Your task to perform on an android device: Open Chrome and go to settings Image 0: 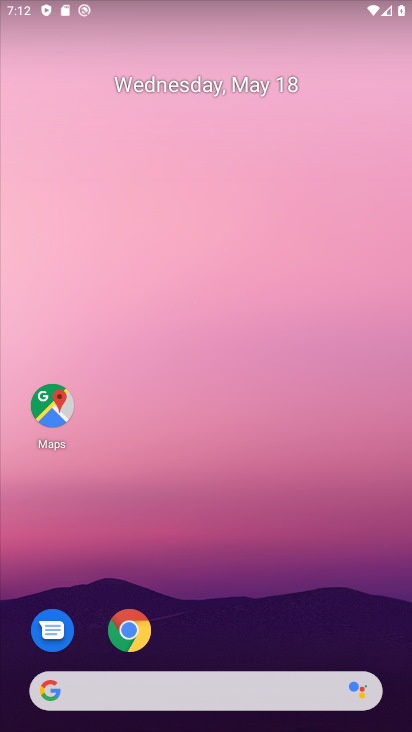
Step 0: click (125, 631)
Your task to perform on an android device: Open Chrome and go to settings Image 1: 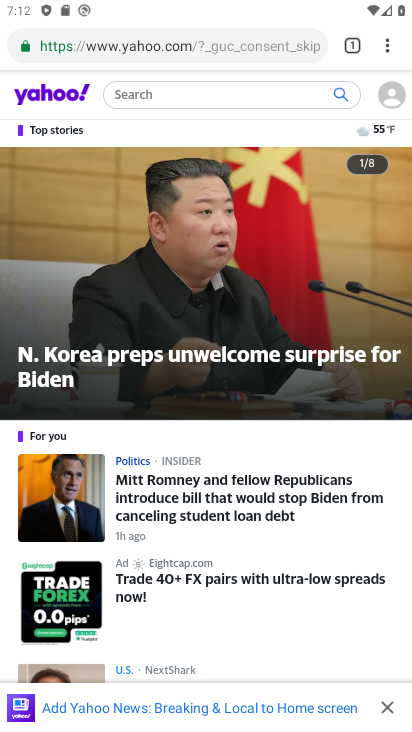
Step 1: click (384, 42)
Your task to perform on an android device: Open Chrome and go to settings Image 2: 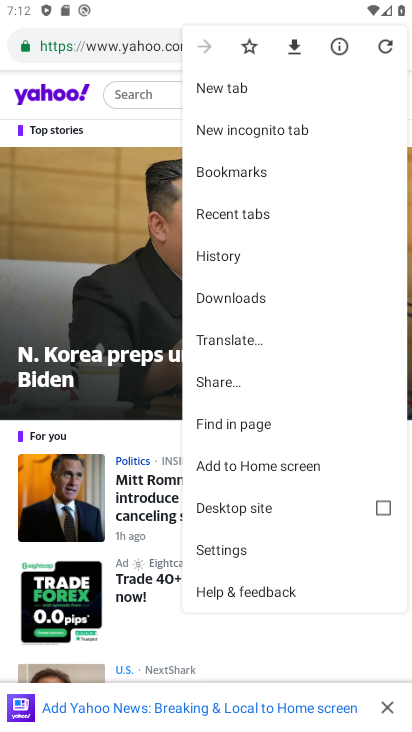
Step 2: click (224, 550)
Your task to perform on an android device: Open Chrome and go to settings Image 3: 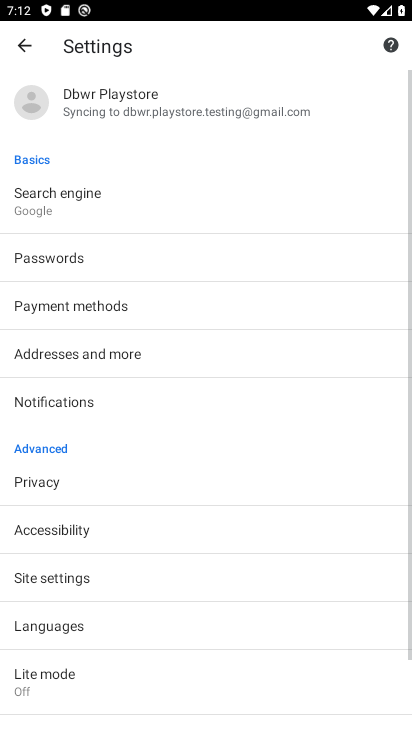
Step 3: task complete